Your task to perform on an android device: Go to eBay Image 0: 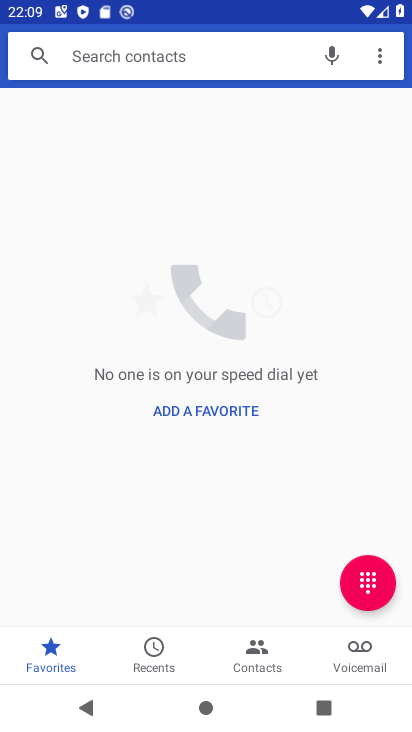
Step 0: press home button
Your task to perform on an android device: Go to eBay Image 1: 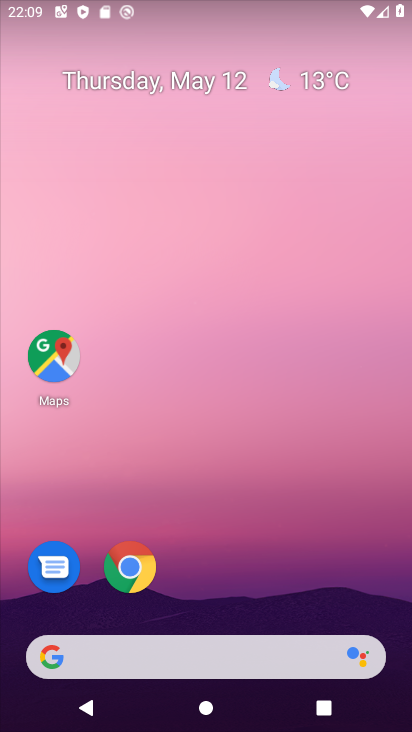
Step 1: click (128, 571)
Your task to perform on an android device: Go to eBay Image 2: 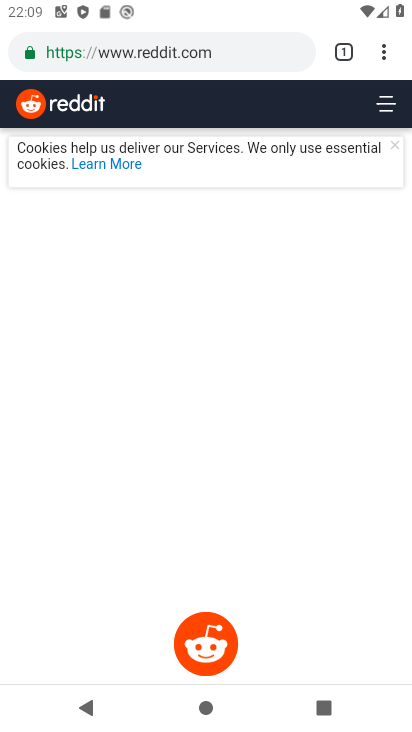
Step 2: click (343, 45)
Your task to perform on an android device: Go to eBay Image 3: 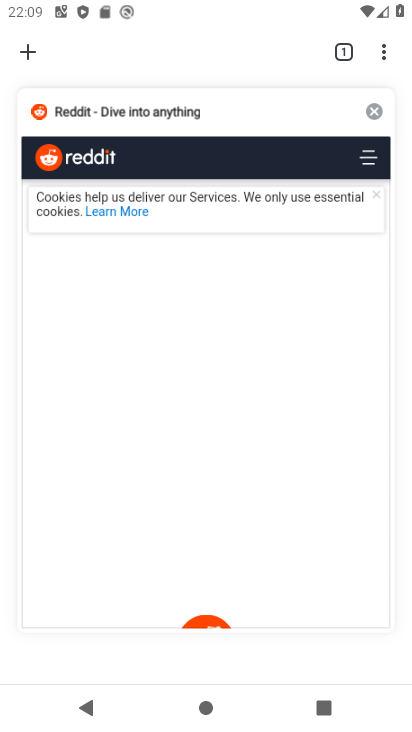
Step 3: click (377, 106)
Your task to perform on an android device: Go to eBay Image 4: 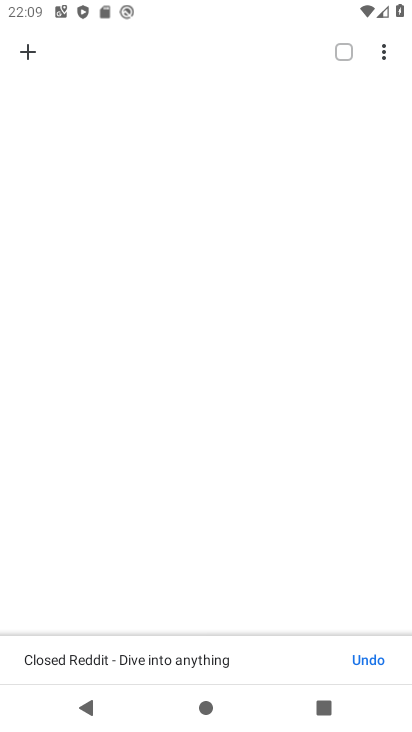
Step 4: click (33, 50)
Your task to perform on an android device: Go to eBay Image 5: 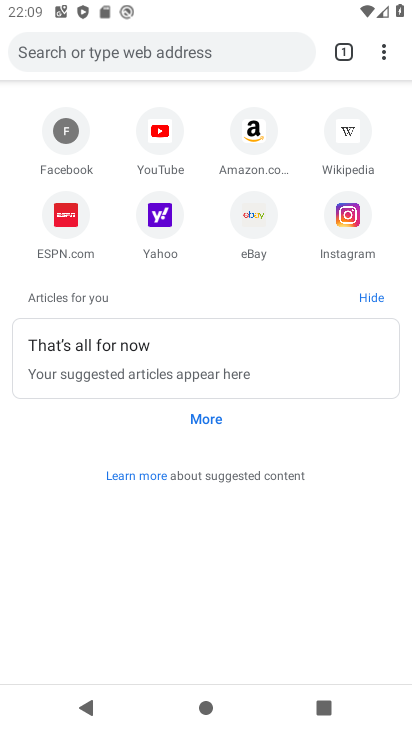
Step 5: click (253, 206)
Your task to perform on an android device: Go to eBay Image 6: 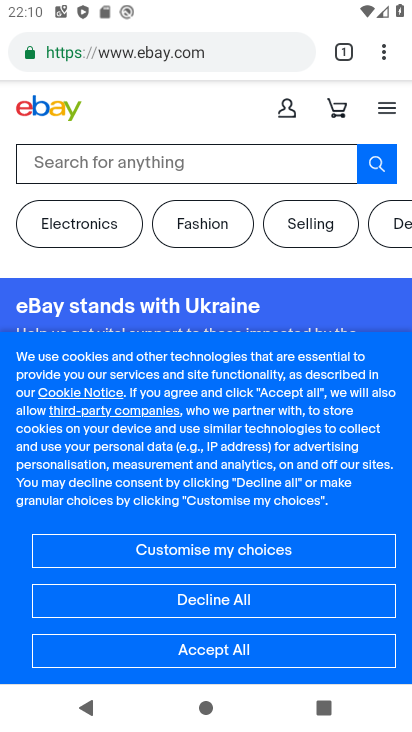
Step 6: click (210, 651)
Your task to perform on an android device: Go to eBay Image 7: 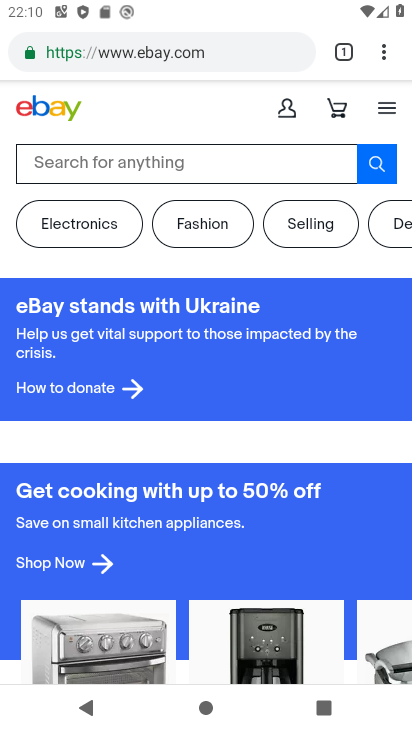
Step 7: task complete